Your task to perform on an android device: turn on data saver in the chrome app Image 0: 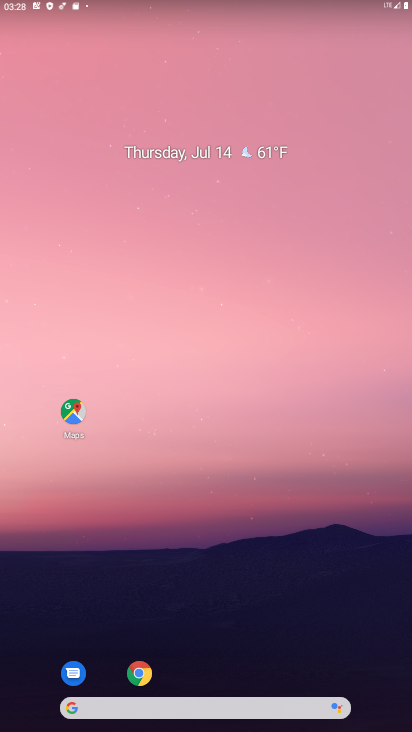
Step 0: click (146, 672)
Your task to perform on an android device: turn on data saver in the chrome app Image 1: 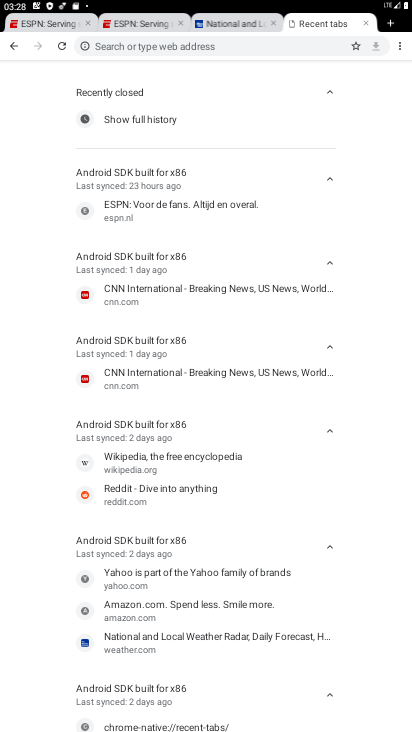
Step 1: click (398, 50)
Your task to perform on an android device: turn on data saver in the chrome app Image 2: 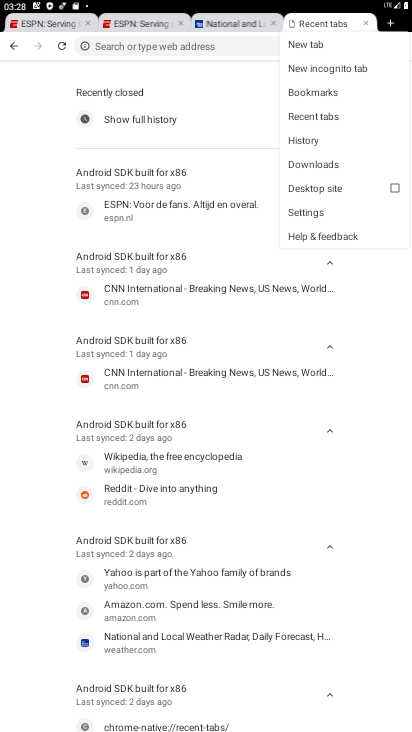
Step 2: click (320, 207)
Your task to perform on an android device: turn on data saver in the chrome app Image 3: 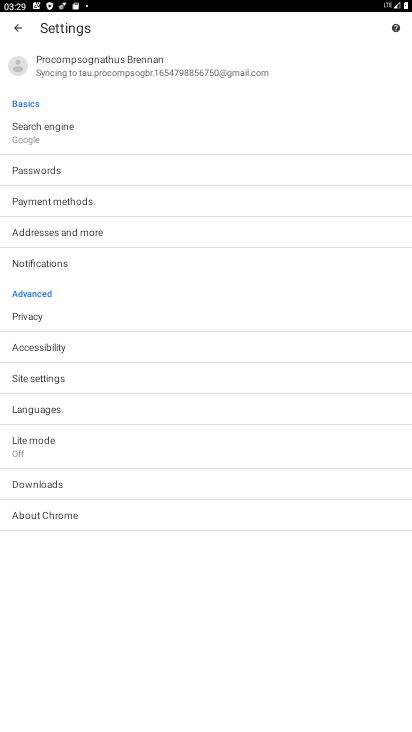
Step 3: click (191, 455)
Your task to perform on an android device: turn on data saver in the chrome app Image 4: 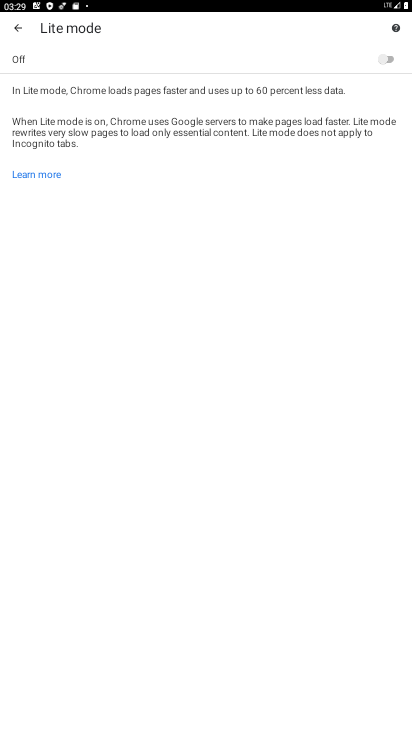
Step 4: click (390, 57)
Your task to perform on an android device: turn on data saver in the chrome app Image 5: 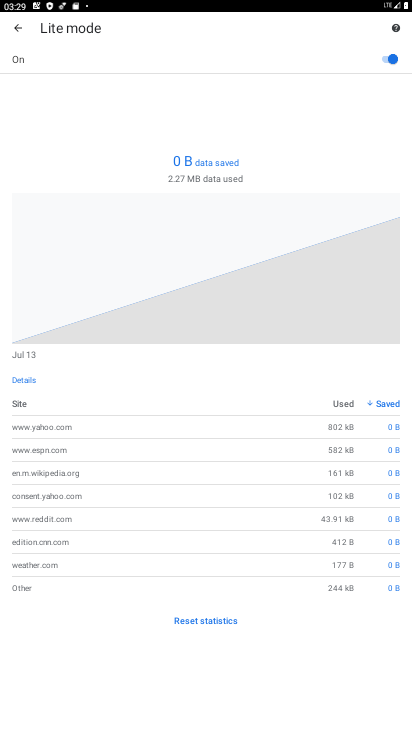
Step 5: task complete